Your task to perform on an android device: allow cookies in the chrome app Image 0: 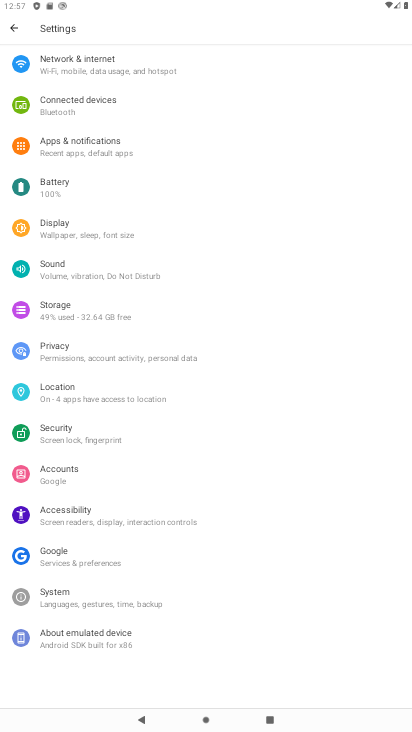
Step 0: press home button
Your task to perform on an android device: allow cookies in the chrome app Image 1: 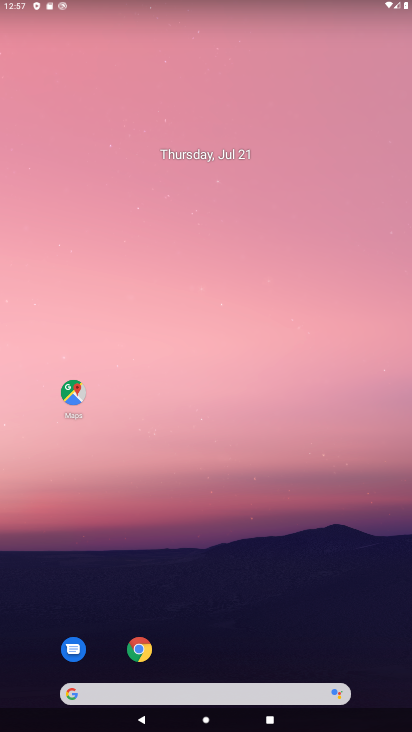
Step 1: click (138, 651)
Your task to perform on an android device: allow cookies in the chrome app Image 2: 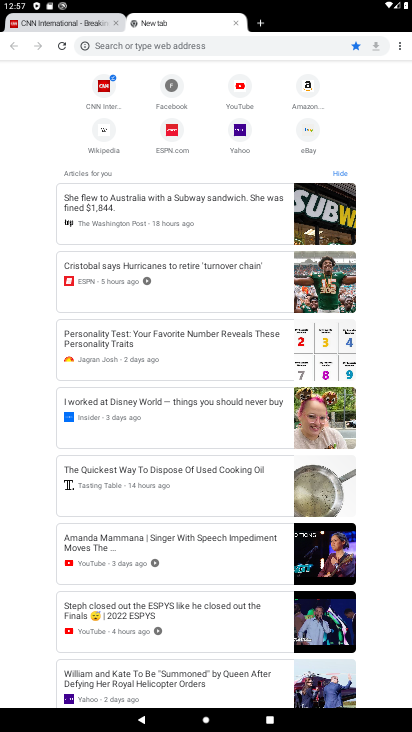
Step 2: click (398, 43)
Your task to perform on an android device: allow cookies in the chrome app Image 3: 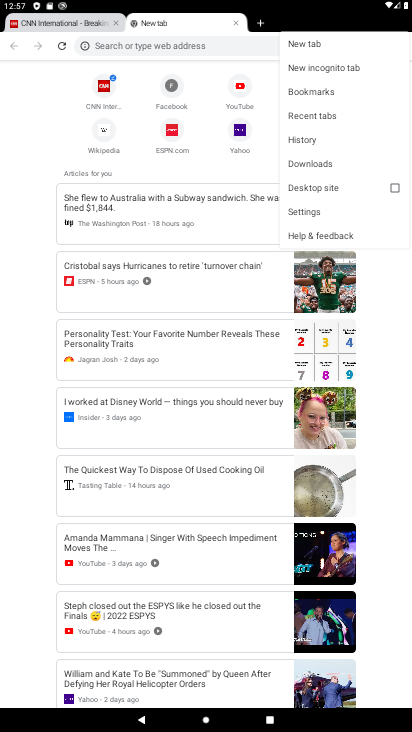
Step 3: click (336, 212)
Your task to perform on an android device: allow cookies in the chrome app Image 4: 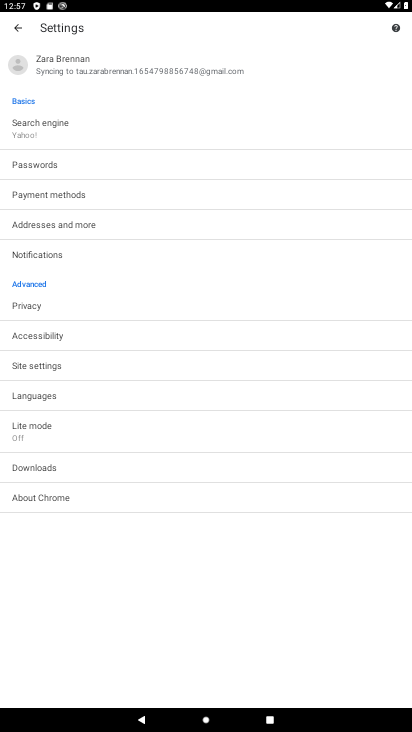
Step 4: click (186, 364)
Your task to perform on an android device: allow cookies in the chrome app Image 5: 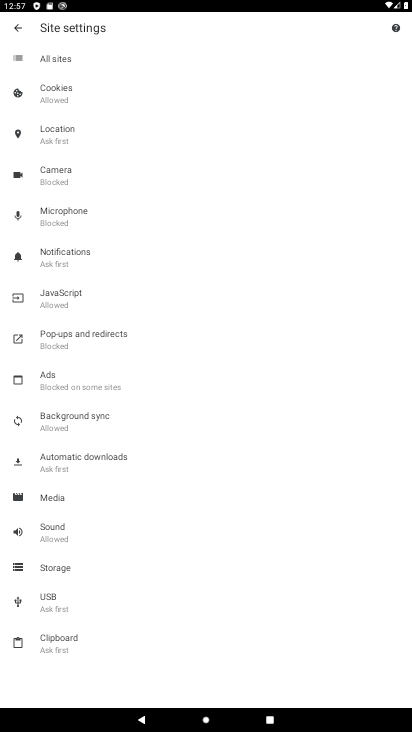
Step 5: click (114, 98)
Your task to perform on an android device: allow cookies in the chrome app Image 6: 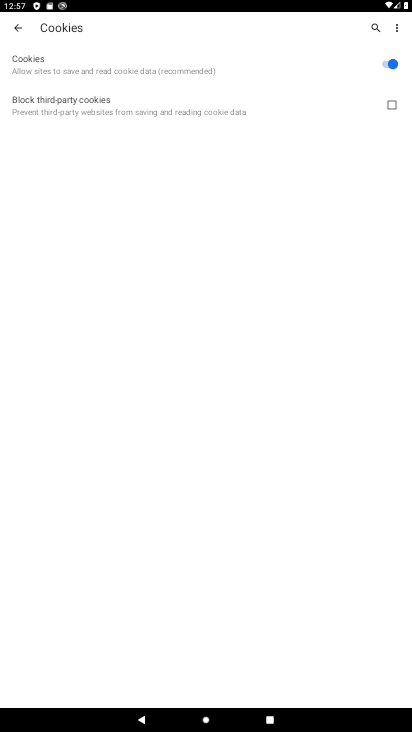
Step 6: task complete